Your task to perform on an android device: find snoozed emails in the gmail app Image 0: 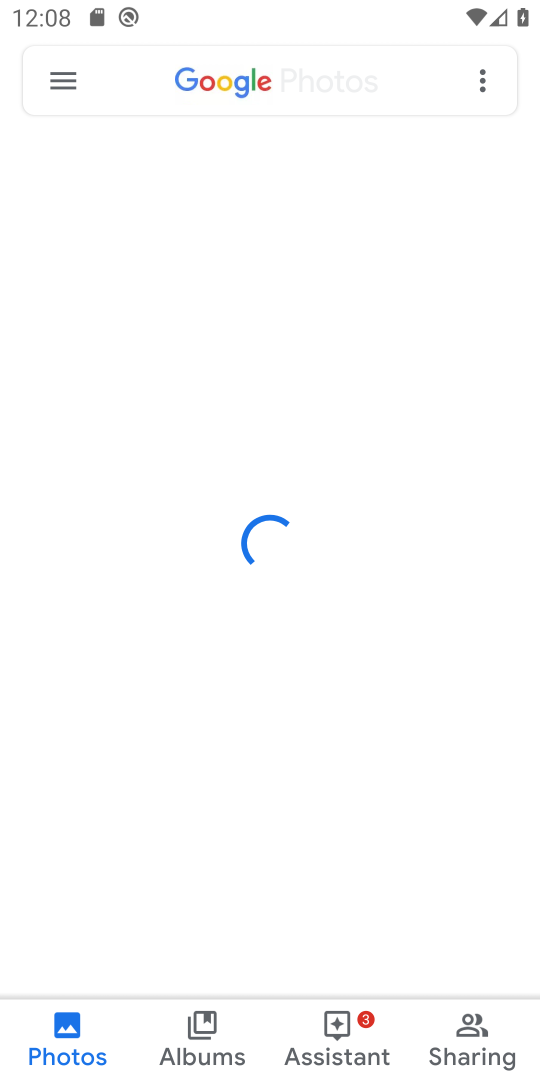
Step 0: press home button
Your task to perform on an android device: find snoozed emails in the gmail app Image 1: 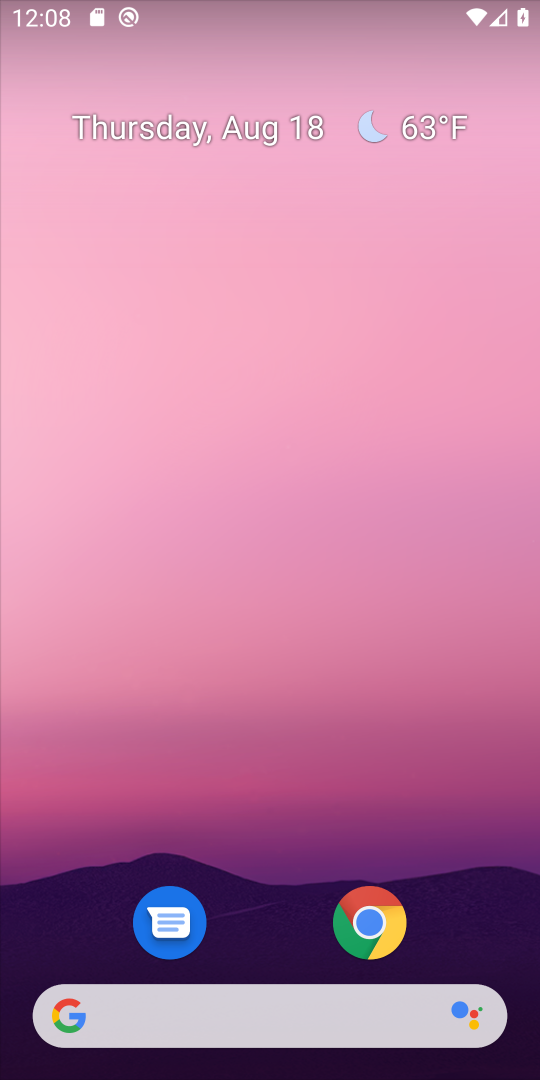
Step 1: drag from (267, 823) to (234, 392)
Your task to perform on an android device: find snoozed emails in the gmail app Image 2: 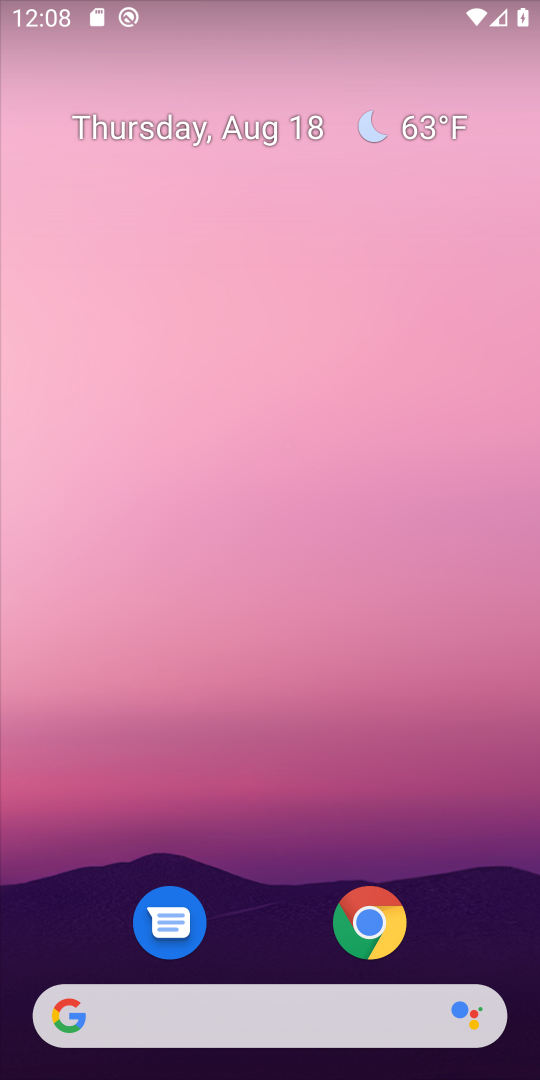
Step 2: drag from (270, 871) to (263, 267)
Your task to perform on an android device: find snoozed emails in the gmail app Image 3: 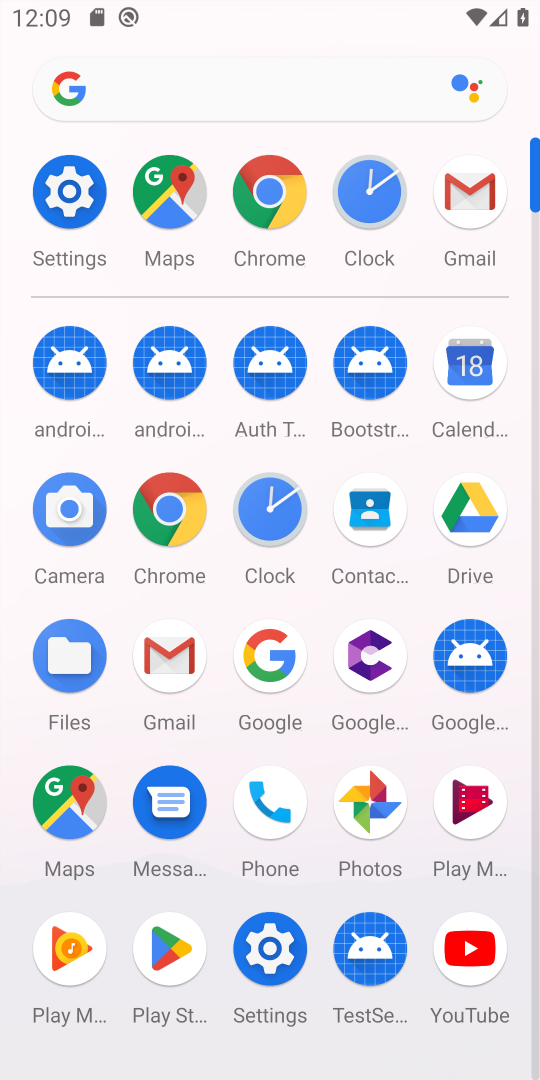
Step 3: click (462, 192)
Your task to perform on an android device: find snoozed emails in the gmail app Image 4: 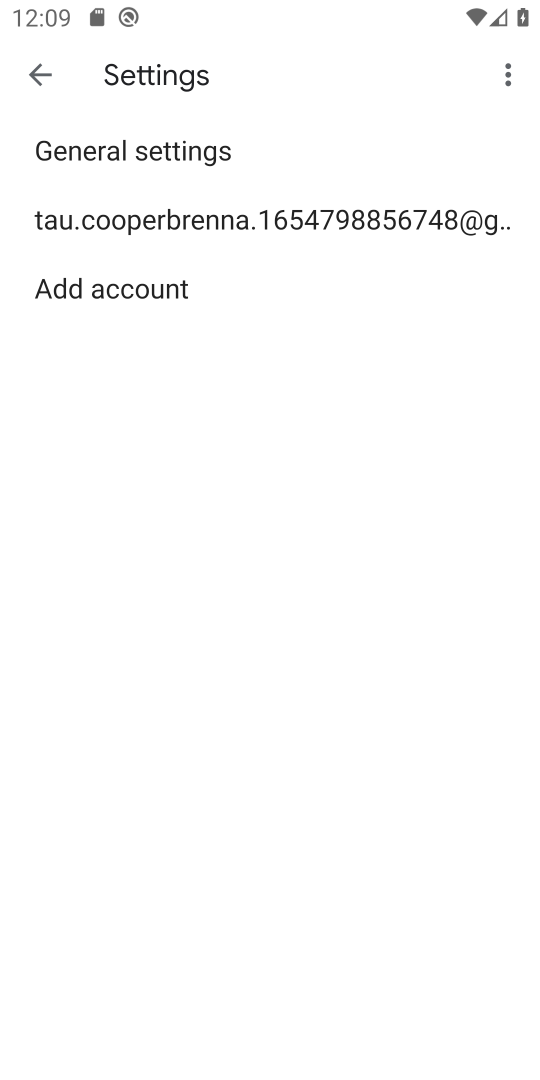
Step 4: click (41, 83)
Your task to perform on an android device: find snoozed emails in the gmail app Image 5: 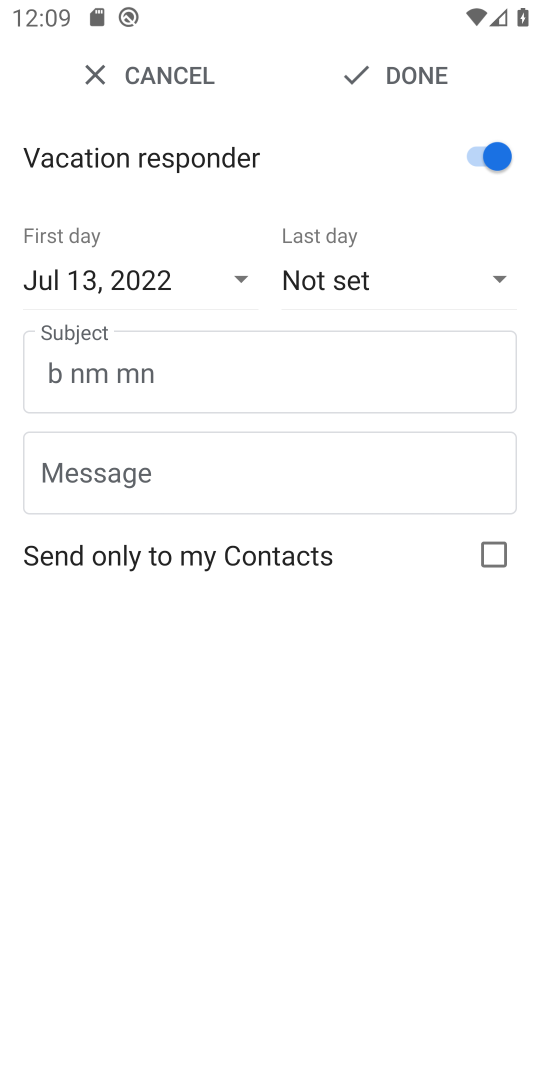
Step 5: press back button
Your task to perform on an android device: find snoozed emails in the gmail app Image 6: 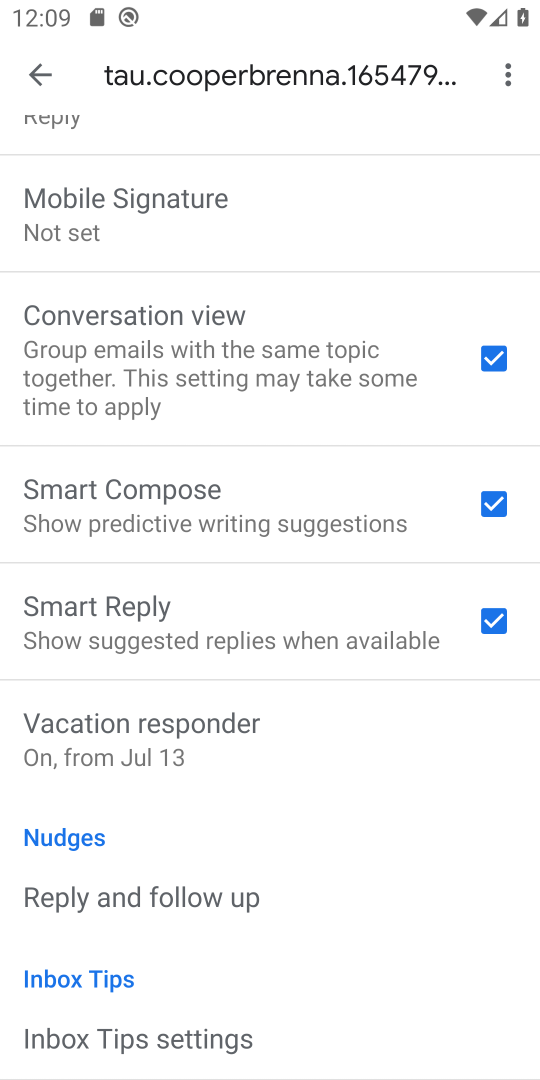
Step 6: press back button
Your task to perform on an android device: find snoozed emails in the gmail app Image 7: 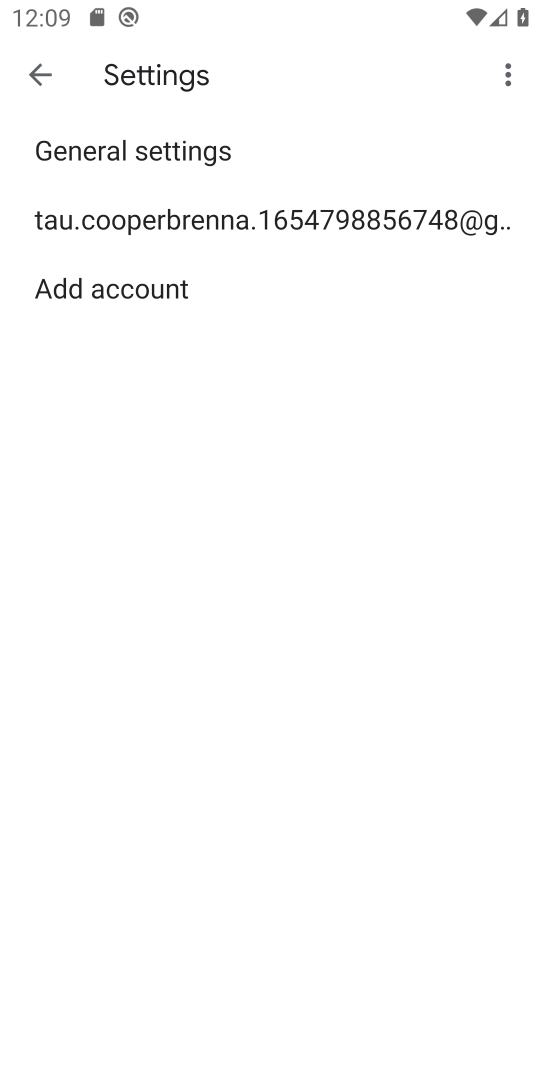
Step 7: press back button
Your task to perform on an android device: find snoozed emails in the gmail app Image 8: 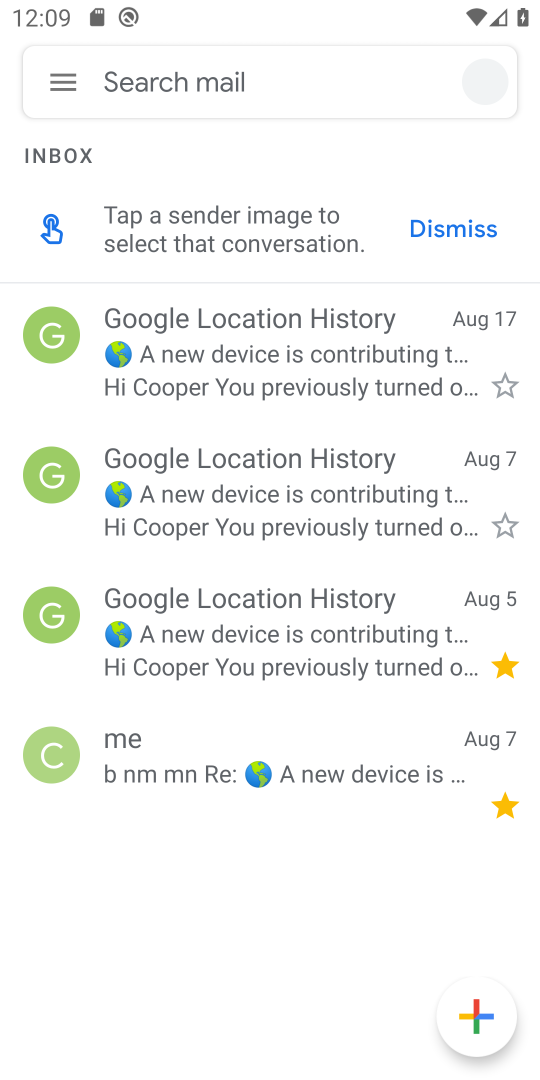
Step 8: click (61, 67)
Your task to perform on an android device: find snoozed emails in the gmail app Image 9: 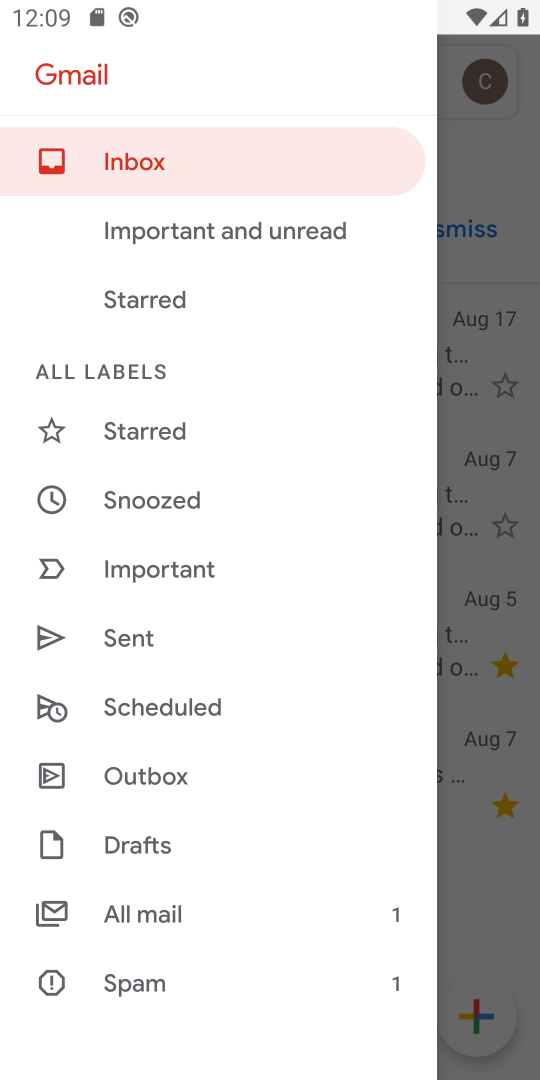
Step 9: click (148, 497)
Your task to perform on an android device: find snoozed emails in the gmail app Image 10: 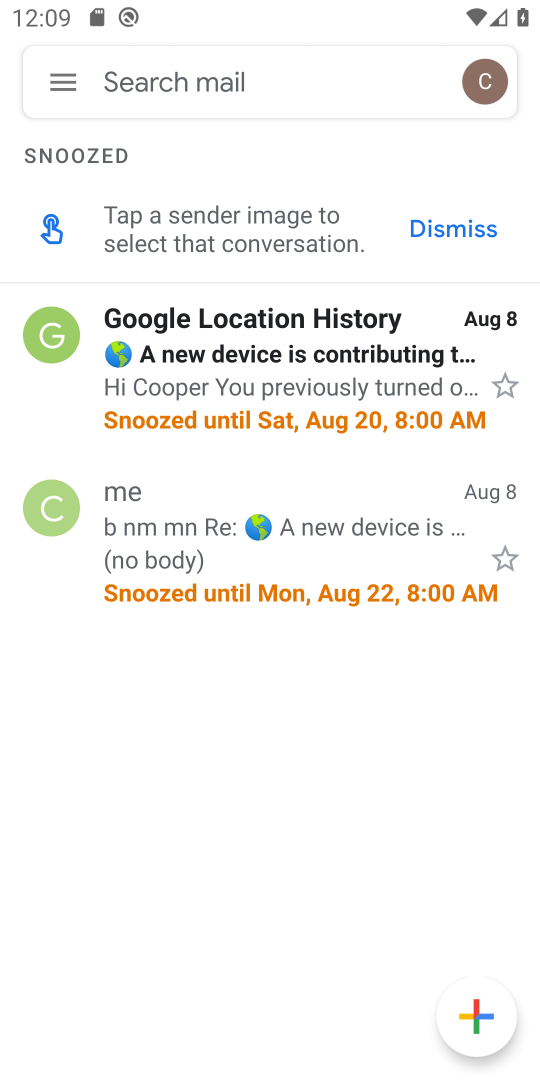
Step 10: task complete